Your task to perform on an android device: Is it going to rain tomorrow? Image 0: 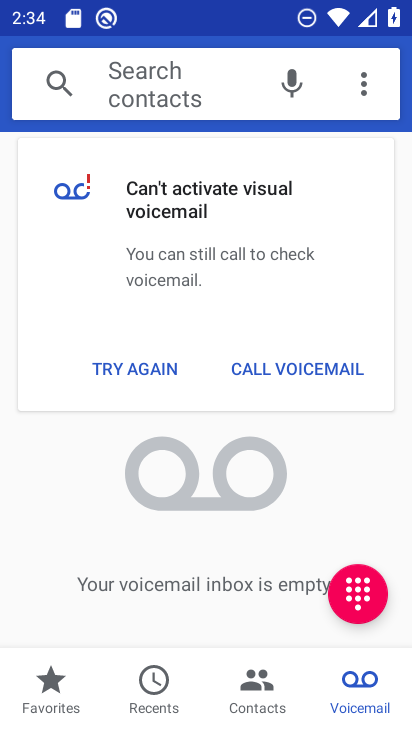
Step 0: press home button
Your task to perform on an android device: Is it going to rain tomorrow? Image 1: 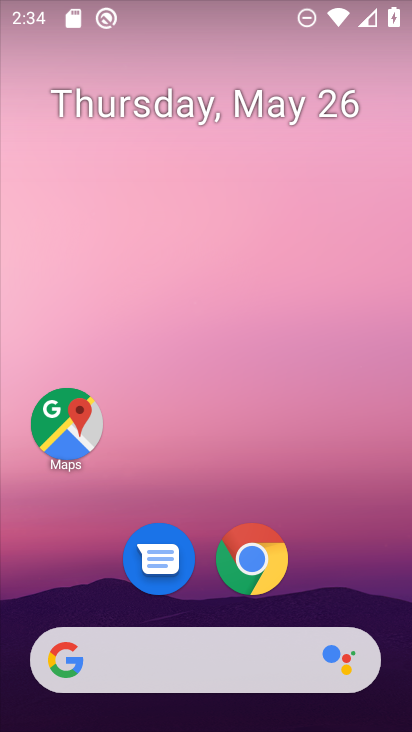
Step 1: drag from (251, 657) to (361, 279)
Your task to perform on an android device: Is it going to rain tomorrow? Image 2: 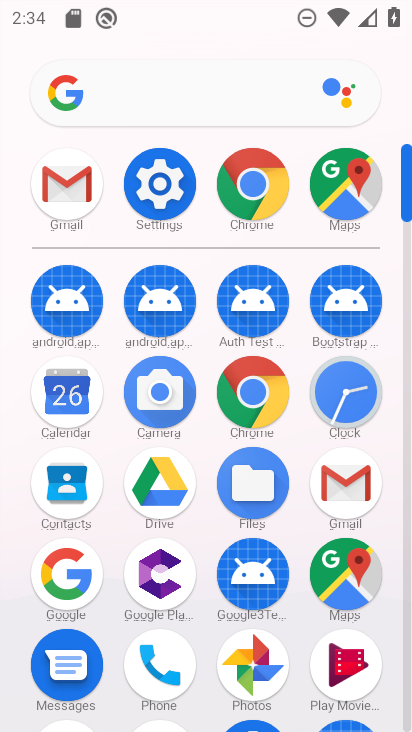
Step 2: click (72, 569)
Your task to perform on an android device: Is it going to rain tomorrow? Image 3: 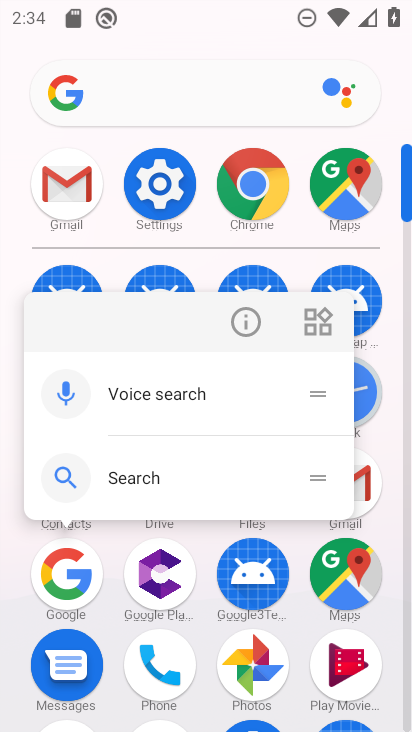
Step 3: click (76, 570)
Your task to perform on an android device: Is it going to rain tomorrow? Image 4: 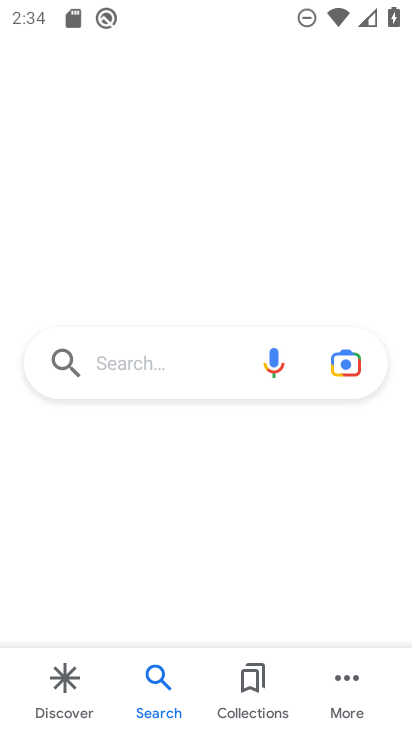
Step 4: click (150, 677)
Your task to perform on an android device: Is it going to rain tomorrow? Image 5: 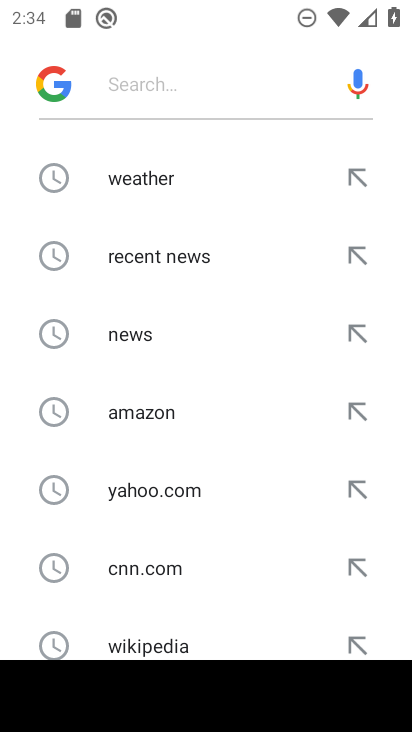
Step 5: click (166, 179)
Your task to perform on an android device: Is it going to rain tomorrow? Image 6: 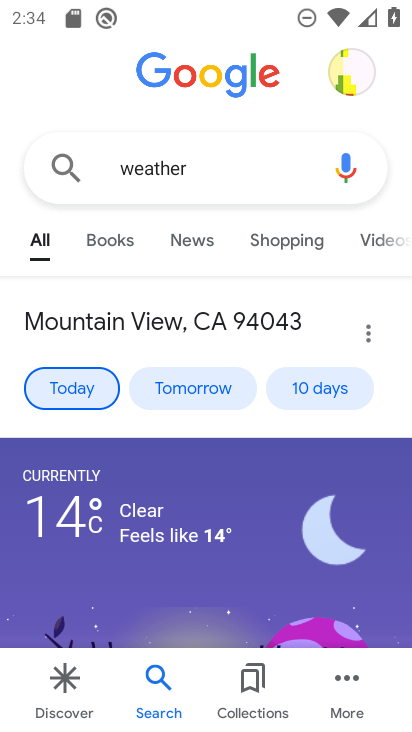
Step 6: click (211, 397)
Your task to perform on an android device: Is it going to rain tomorrow? Image 7: 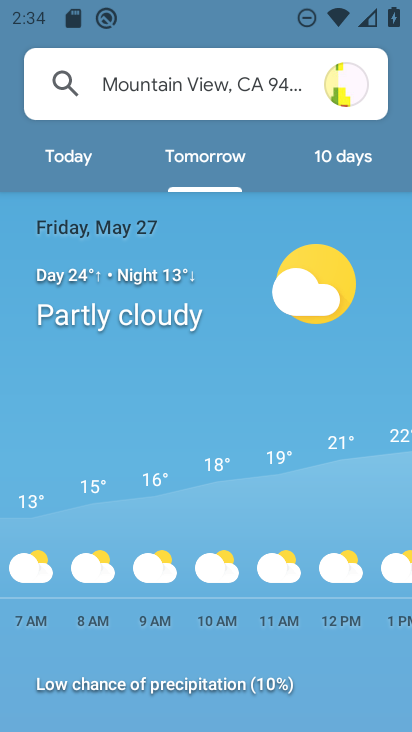
Step 7: task complete